Your task to perform on an android device: see creations saved in the google photos Image 0: 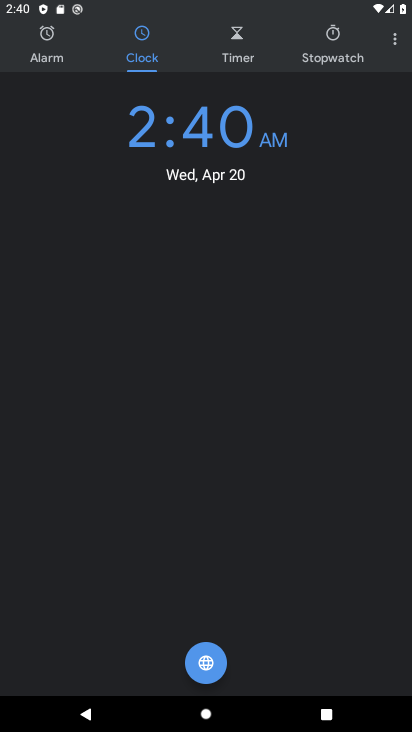
Step 0: press back button
Your task to perform on an android device: see creations saved in the google photos Image 1: 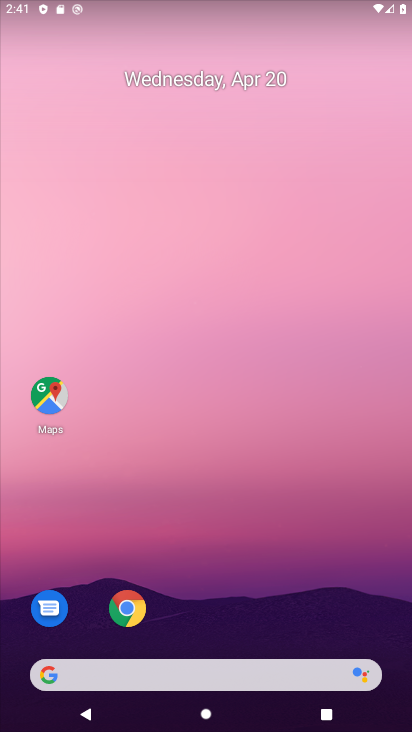
Step 1: drag from (218, 488) to (267, 105)
Your task to perform on an android device: see creations saved in the google photos Image 2: 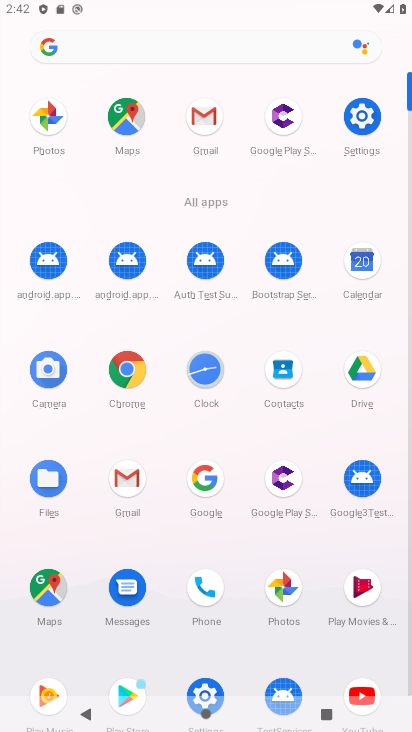
Step 2: click (283, 582)
Your task to perform on an android device: see creations saved in the google photos Image 3: 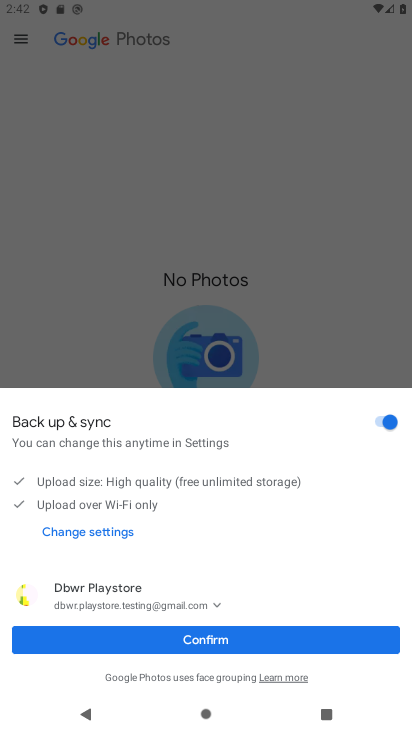
Step 3: click (207, 631)
Your task to perform on an android device: see creations saved in the google photos Image 4: 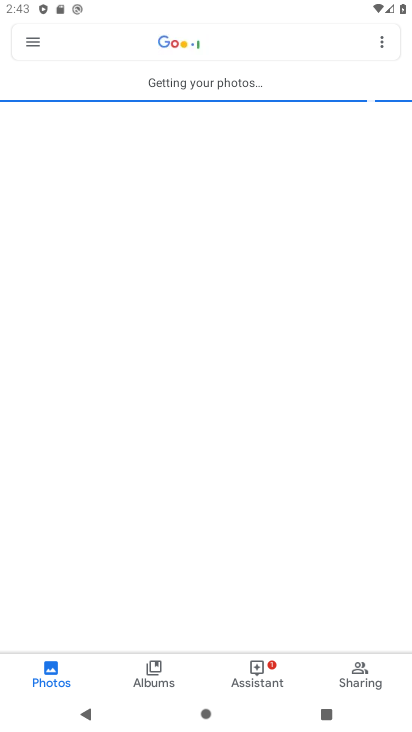
Step 4: click (27, 39)
Your task to perform on an android device: see creations saved in the google photos Image 5: 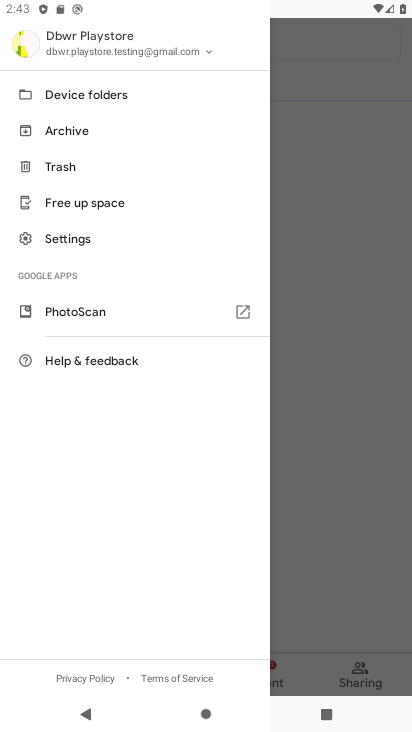
Step 5: click (83, 128)
Your task to perform on an android device: see creations saved in the google photos Image 6: 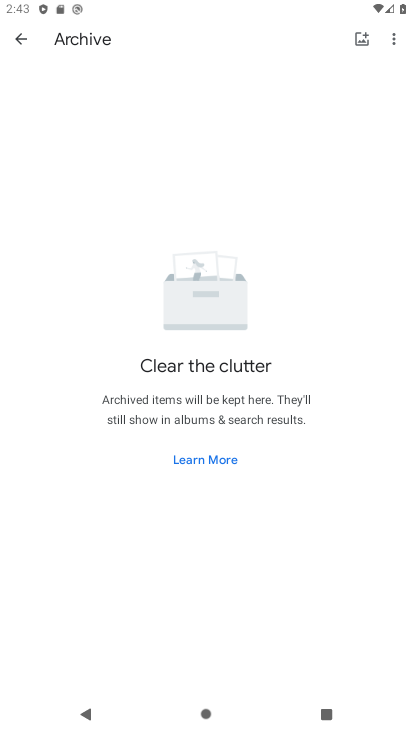
Step 6: task complete